Your task to perform on an android device: turn on sleep mode Image 0: 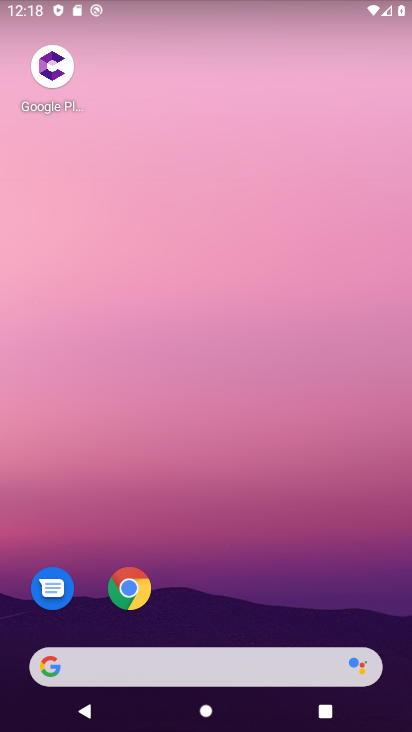
Step 0: press home button
Your task to perform on an android device: turn on sleep mode Image 1: 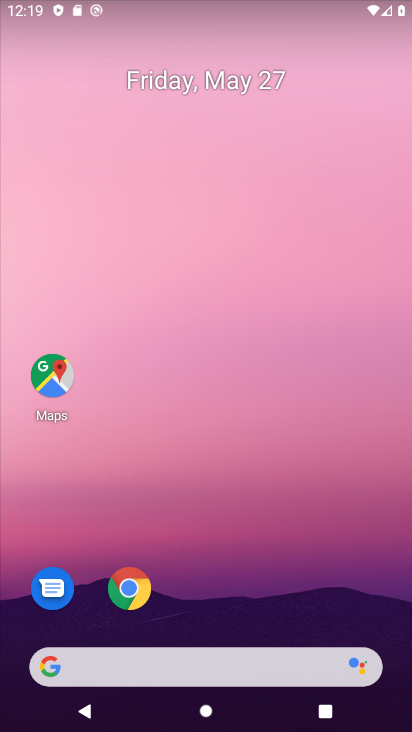
Step 1: drag from (343, 614) to (287, 194)
Your task to perform on an android device: turn on sleep mode Image 2: 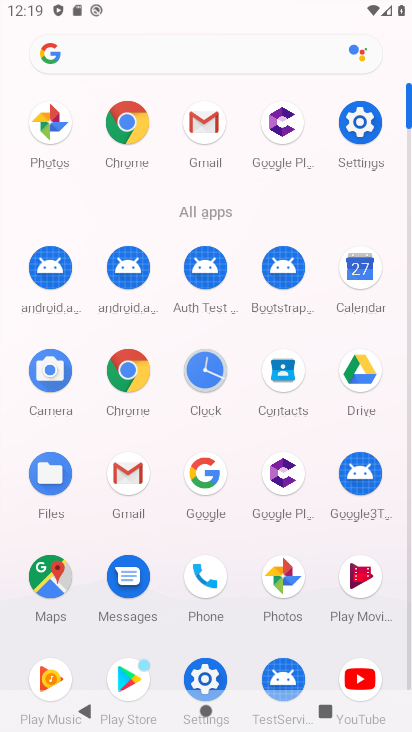
Step 2: click (348, 141)
Your task to perform on an android device: turn on sleep mode Image 3: 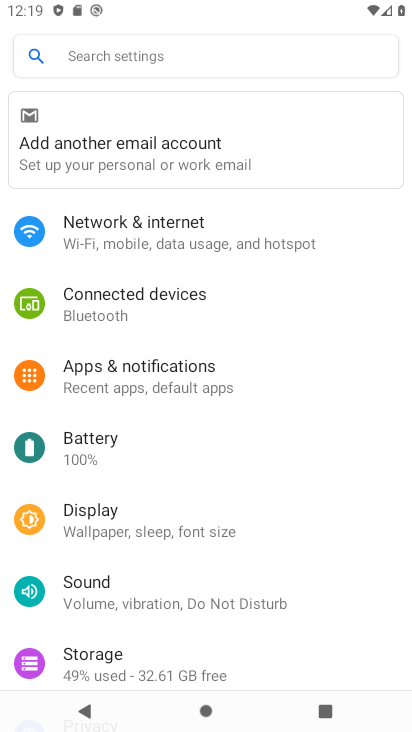
Step 3: click (113, 511)
Your task to perform on an android device: turn on sleep mode Image 4: 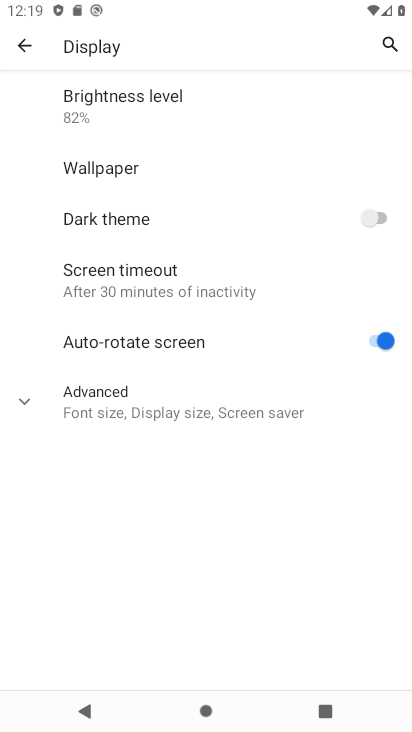
Step 4: task complete